Your task to perform on an android device: turn on priority inbox in the gmail app Image 0: 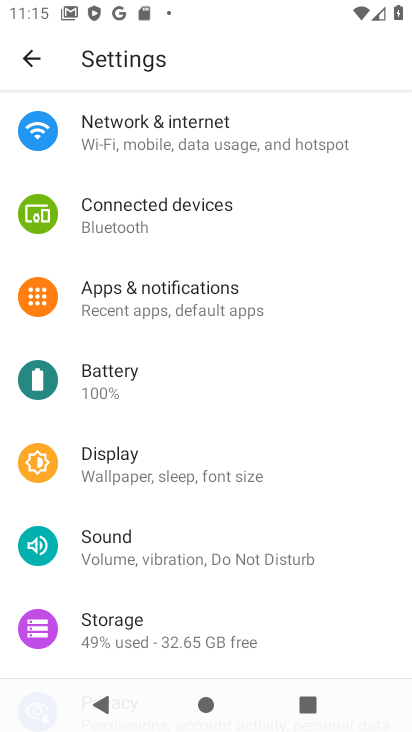
Step 0: press back button
Your task to perform on an android device: turn on priority inbox in the gmail app Image 1: 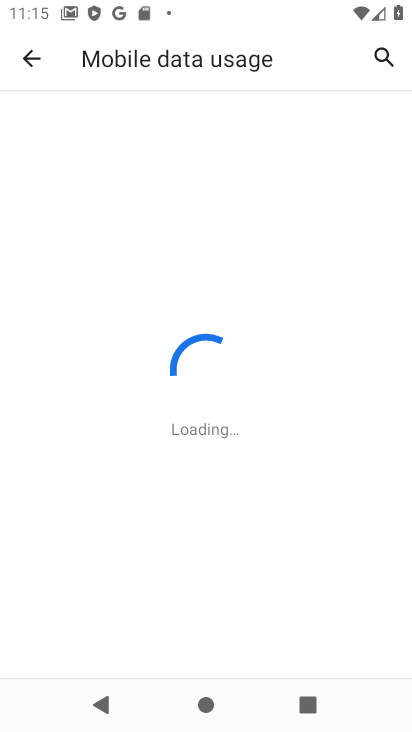
Step 1: click (38, 59)
Your task to perform on an android device: turn on priority inbox in the gmail app Image 2: 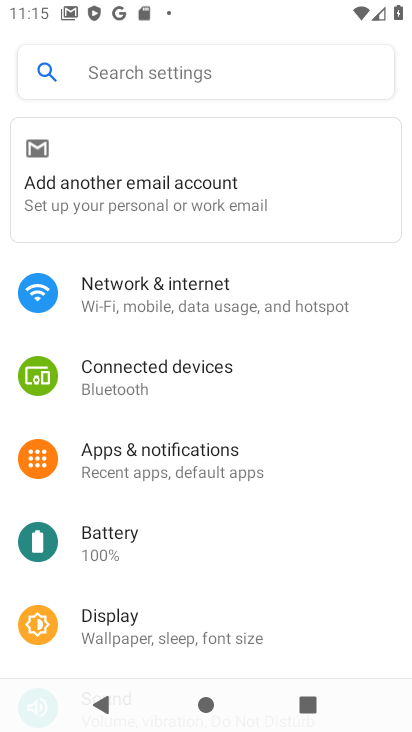
Step 2: drag from (164, 584) to (137, 337)
Your task to perform on an android device: turn on priority inbox in the gmail app Image 3: 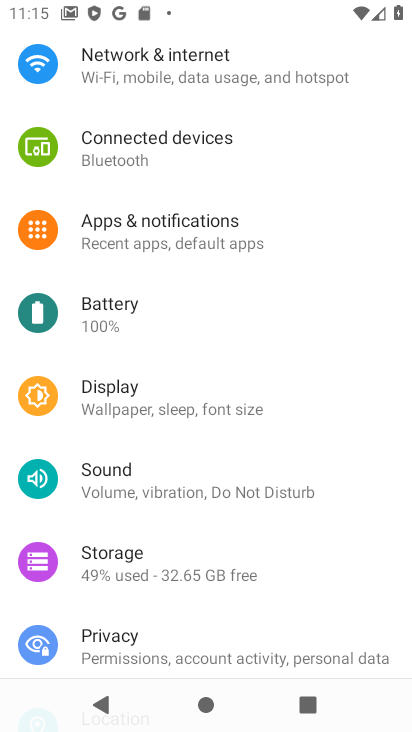
Step 3: press back button
Your task to perform on an android device: turn on priority inbox in the gmail app Image 4: 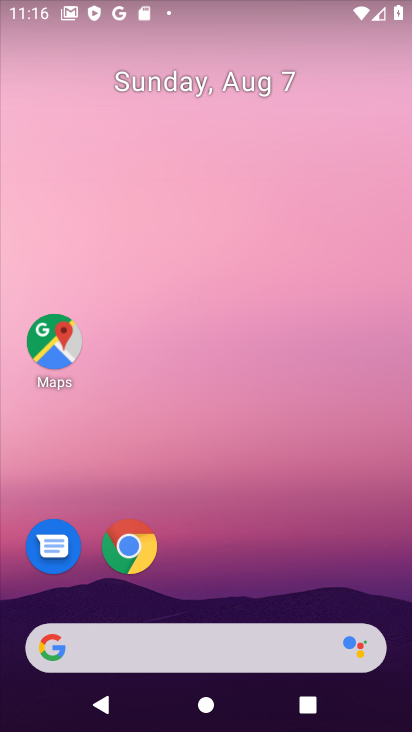
Step 4: drag from (275, 636) to (161, 134)
Your task to perform on an android device: turn on priority inbox in the gmail app Image 5: 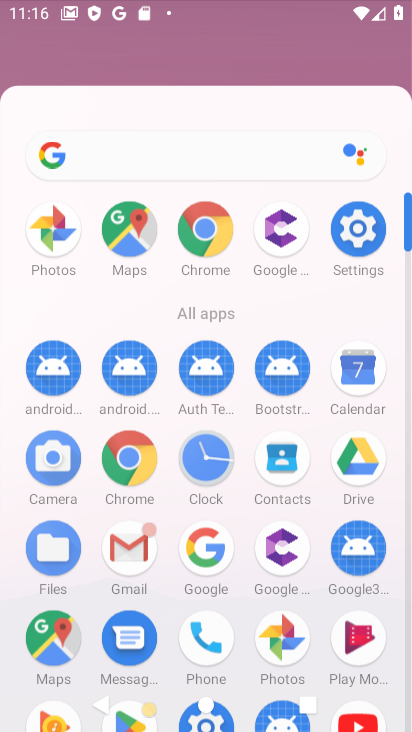
Step 5: drag from (217, 601) to (169, 250)
Your task to perform on an android device: turn on priority inbox in the gmail app Image 6: 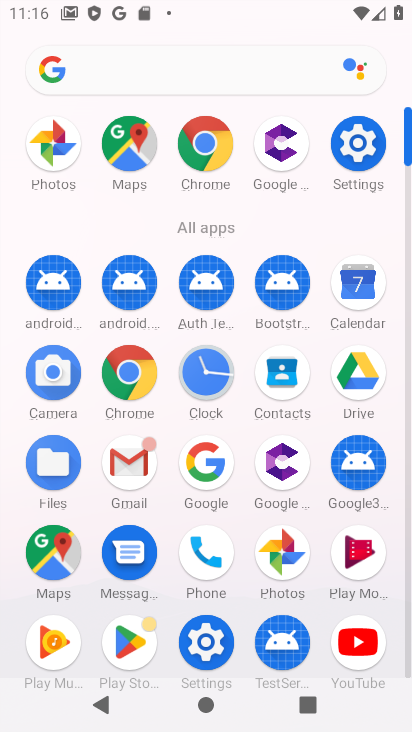
Step 6: drag from (265, 659) to (226, 213)
Your task to perform on an android device: turn on priority inbox in the gmail app Image 7: 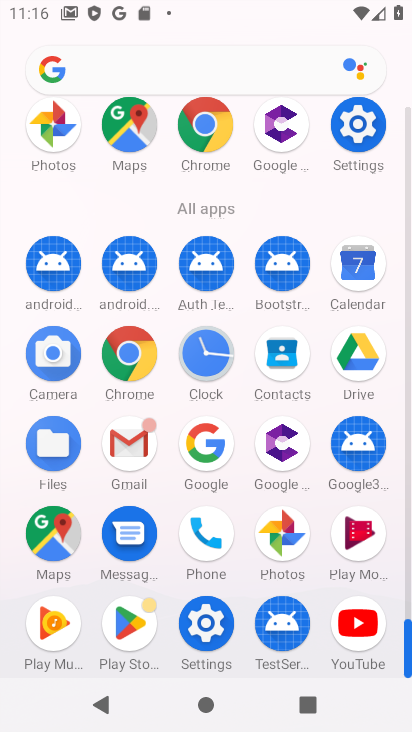
Step 7: click (125, 438)
Your task to perform on an android device: turn on priority inbox in the gmail app Image 8: 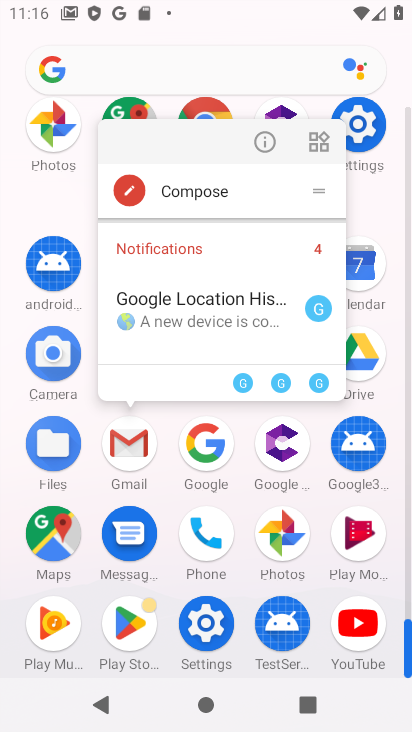
Step 8: click (130, 440)
Your task to perform on an android device: turn on priority inbox in the gmail app Image 9: 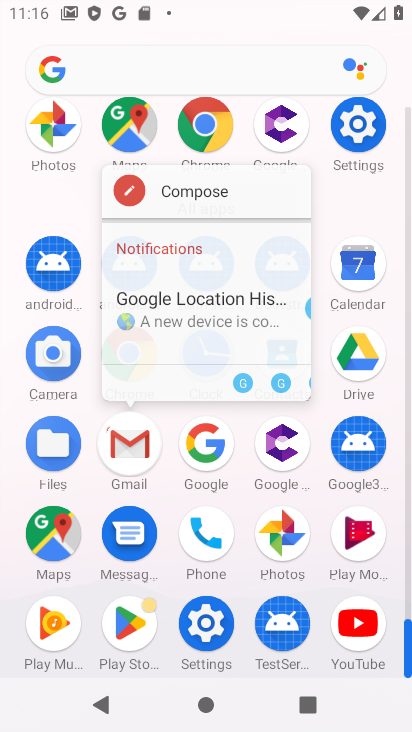
Step 9: click (130, 440)
Your task to perform on an android device: turn on priority inbox in the gmail app Image 10: 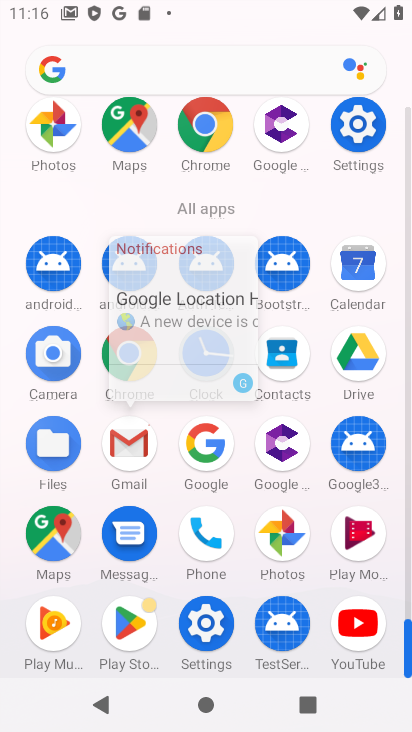
Step 10: click (130, 440)
Your task to perform on an android device: turn on priority inbox in the gmail app Image 11: 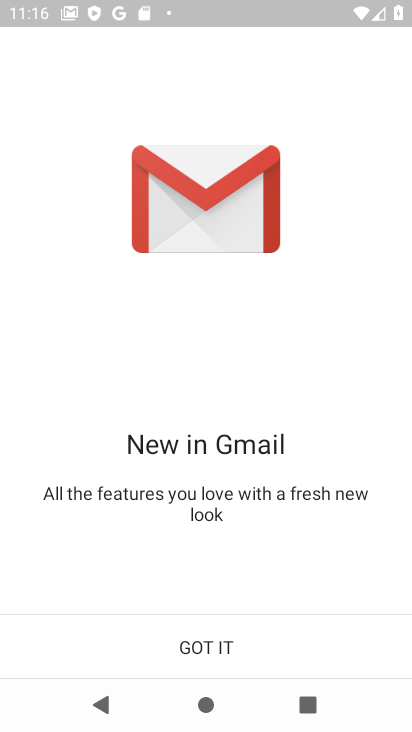
Step 11: click (235, 622)
Your task to perform on an android device: turn on priority inbox in the gmail app Image 12: 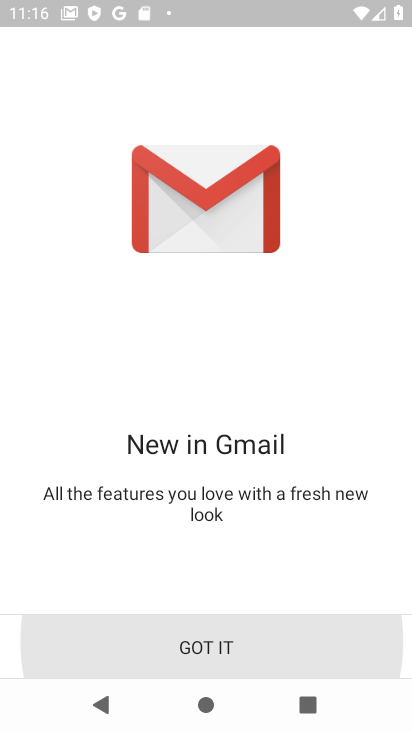
Step 12: click (235, 622)
Your task to perform on an android device: turn on priority inbox in the gmail app Image 13: 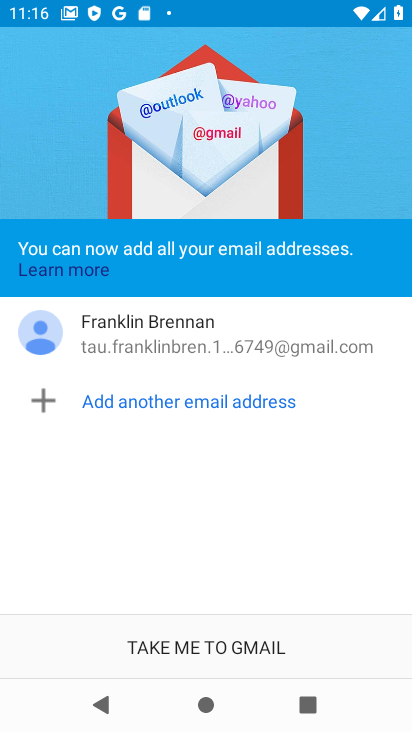
Step 13: click (228, 641)
Your task to perform on an android device: turn on priority inbox in the gmail app Image 14: 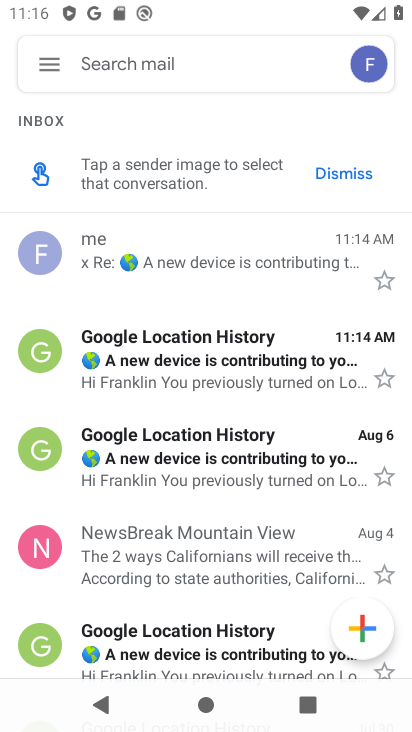
Step 14: click (54, 72)
Your task to perform on an android device: turn on priority inbox in the gmail app Image 15: 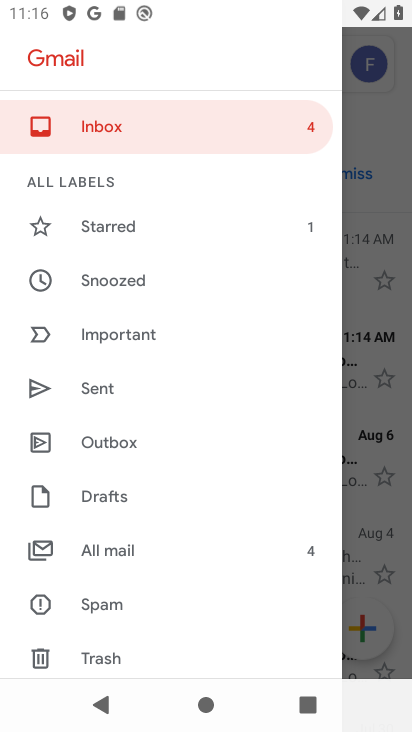
Step 15: drag from (148, 547) to (142, 357)
Your task to perform on an android device: turn on priority inbox in the gmail app Image 16: 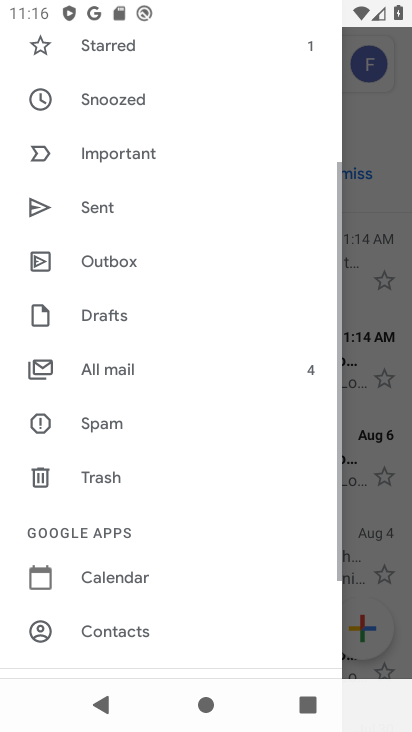
Step 16: drag from (150, 575) to (148, 266)
Your task to perform on an android device: turn on priority inbox in the gmail app Image 17: 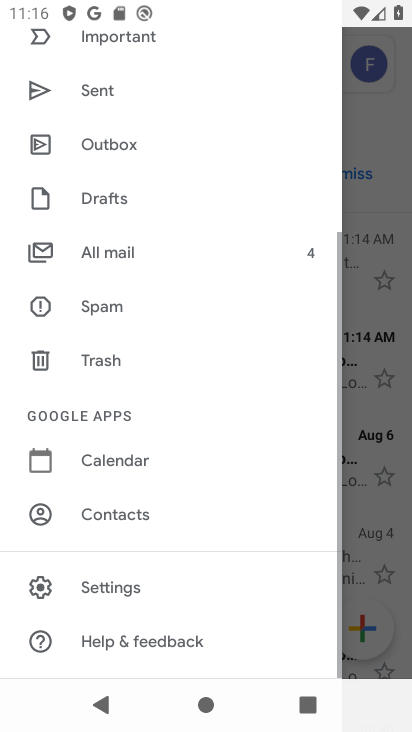
Step 17: drag from (178, 501) to (171, 334)
Your task to perform on an android device: turn on priority inbox in the gmail app Image 18: 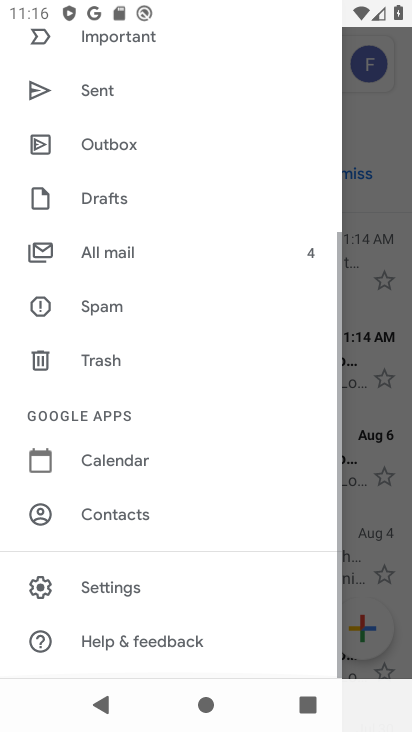
Step 18: click (110, 579)
Your task to perform on an android device: turn on priority inbox in the gmail app Image 19: 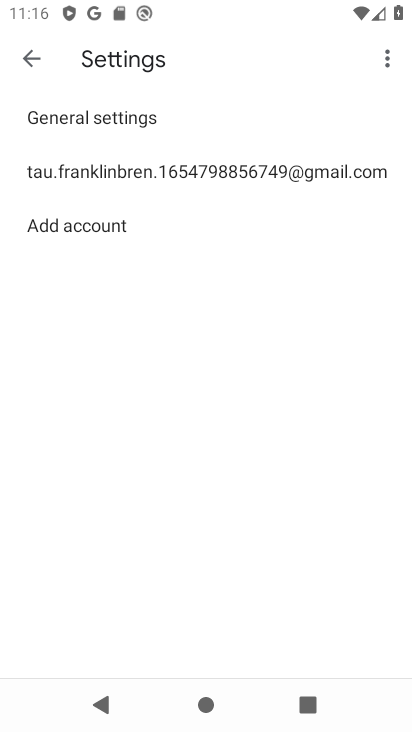
Step 19: click (120, 173)
Your task to perform on an android device: turn on priority inbox in the gmail app Image 20: 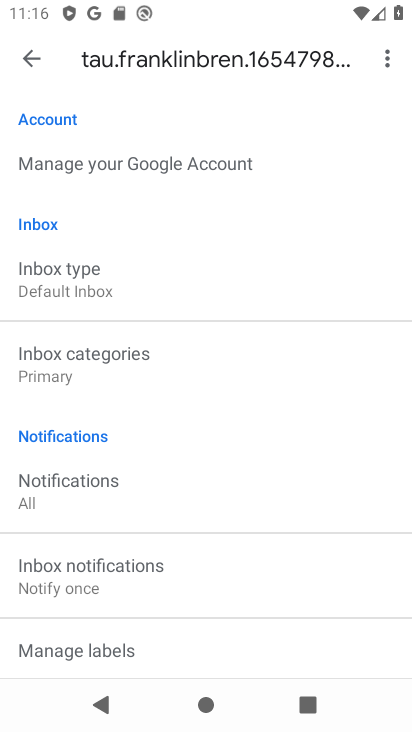
Step 20: click (60, 288)
Your task to perform on an android device: turn on priority inbox in the gmail app Image 21: 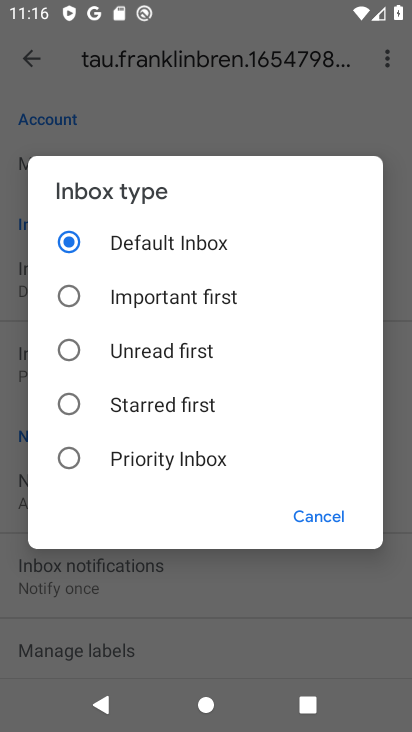
Step 21: click (74, 454)
Your task to perform on an android device: turn on priority inbox in the gmail app Image 22: 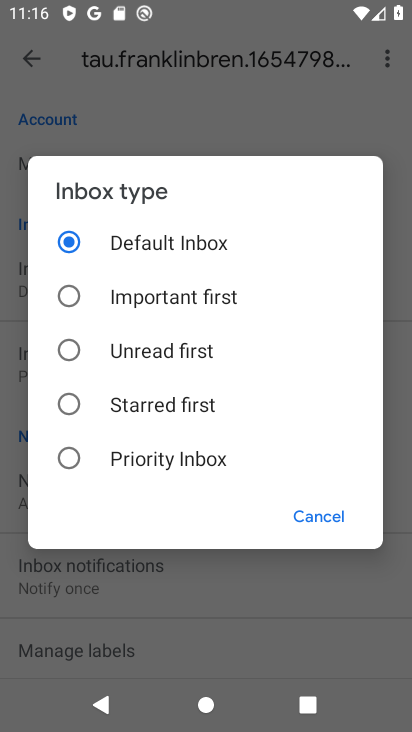
Step 22: click (74, 454)
Your task to perform on an android device: turn on priority inbox in the gmail app Image 23: 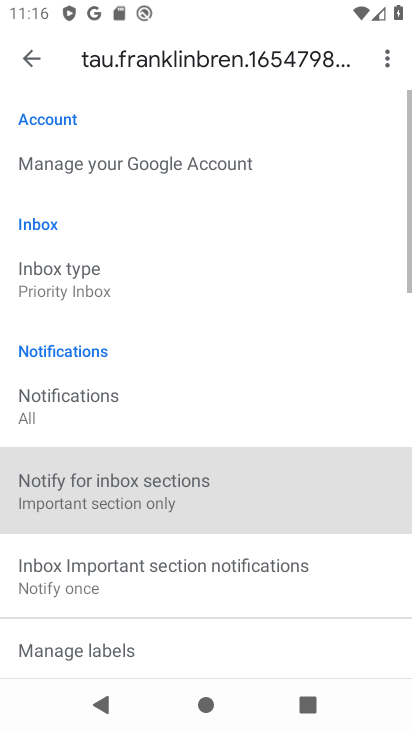
Step 23: click (74, 454)
Your task to perform on an android device: turn on priority inbox in the gmail app Image 24: 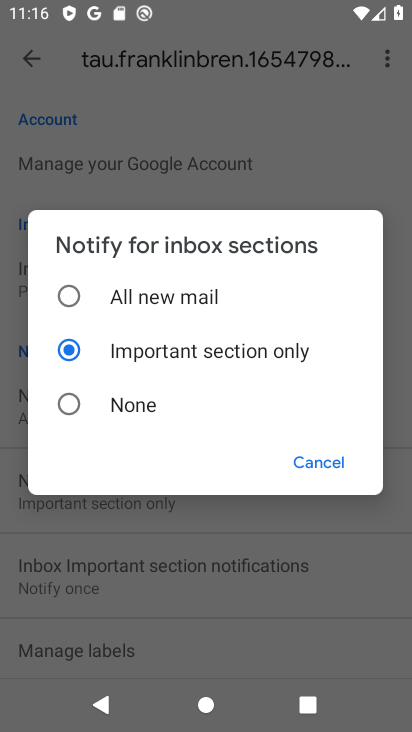
Step 24: click (70, 285)
Your task to perform on an android device: turn on priority inbox in the gmail app Image 25: 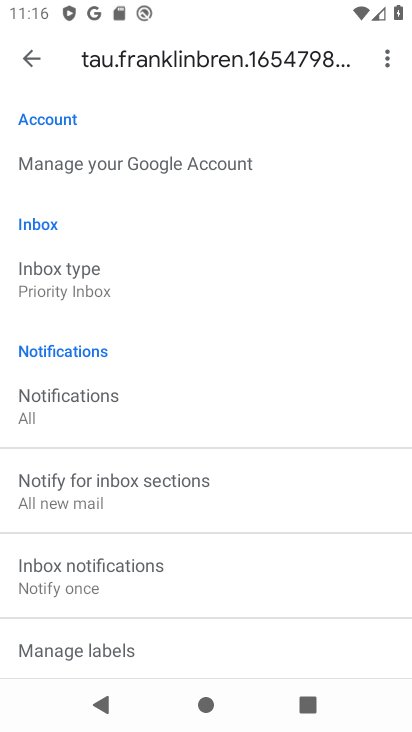
Step 25: task complete